Your task to perform on an android device: What's the weather going to be this weekend? Image 0: 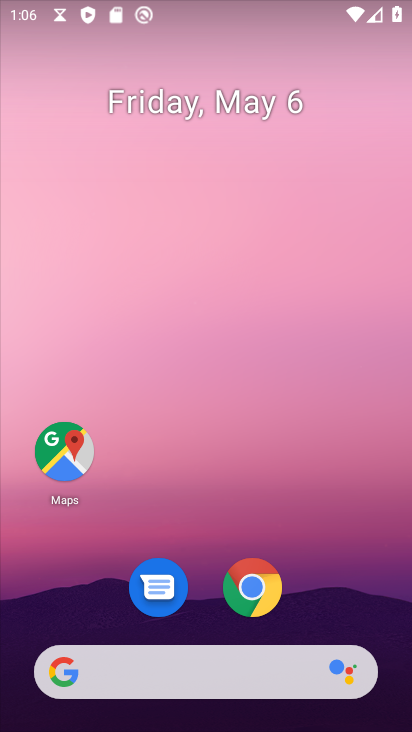
Step 0: drag from (208, 621) to (193, 61)
Your task to perform on an android device: What's the weather going to be this weekend? Image 1: 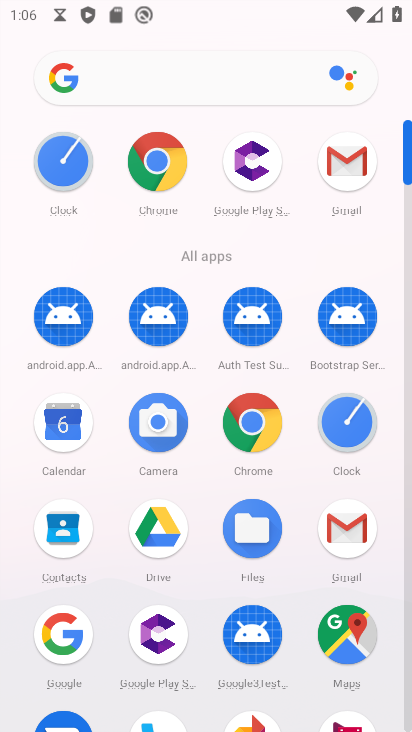
Step 1: click (61, 415)
Your task to perform on an android device: What's the weather going to be this weekend? Image 2: 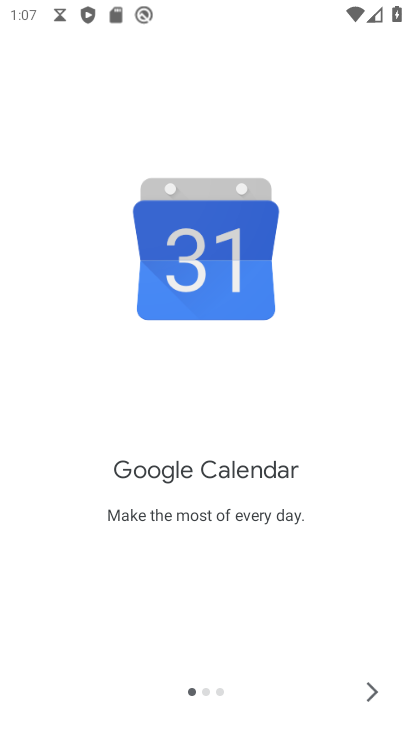
Step 2: click (364, 684)
Your task to perform on an android device: What's the weather going to be this weekend? Image 3: 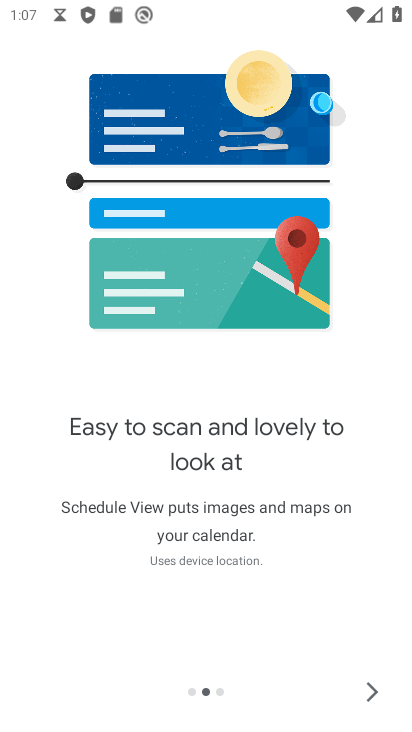
Step 3: click (364, 684)
Your task to perform on an android device: What's the weather going to be this weekend? Image 4: 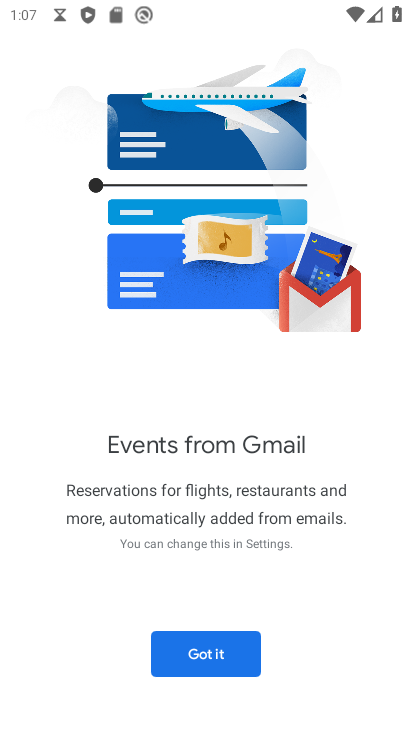
Step 4: click (207, 659)
Your task to perform on an android device: What's the weather going to be this weekend? Image 5: 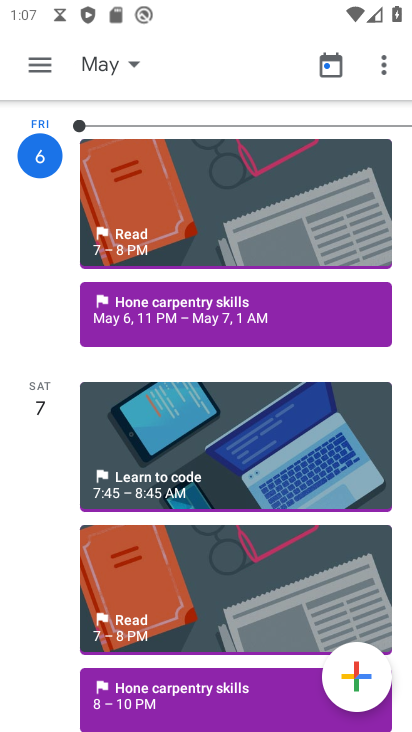
Step 5: task complete